Your task to perform on an android device: add a contact Image 0: 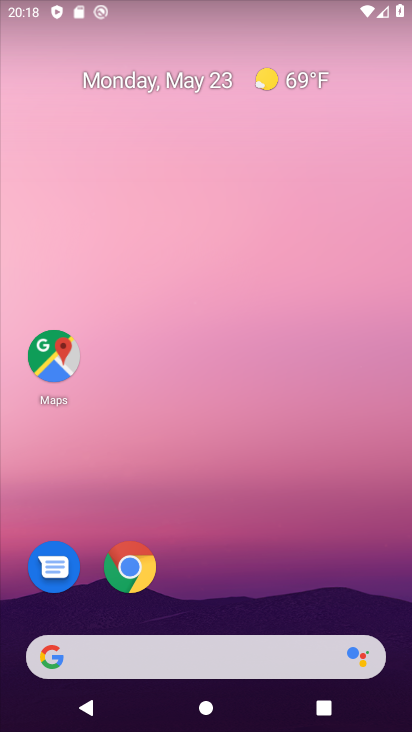
Step 0: drag from (224, 607) to (277, 43)
Your task to perform on an android device: add a contact Image 1: 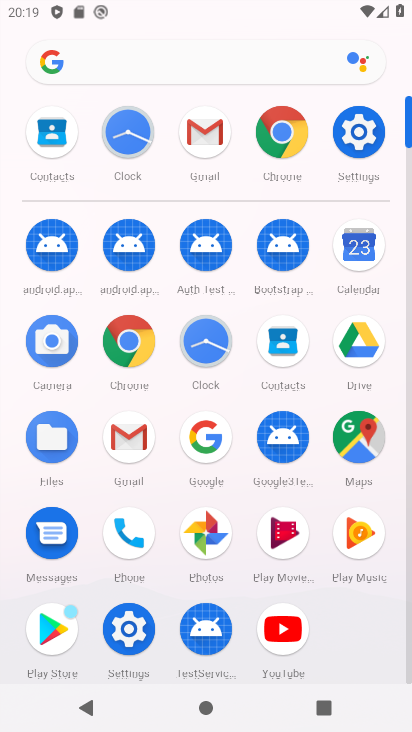
Step 1: click (283, 349)
Your task to perform on an android device: add a contact Image 2: 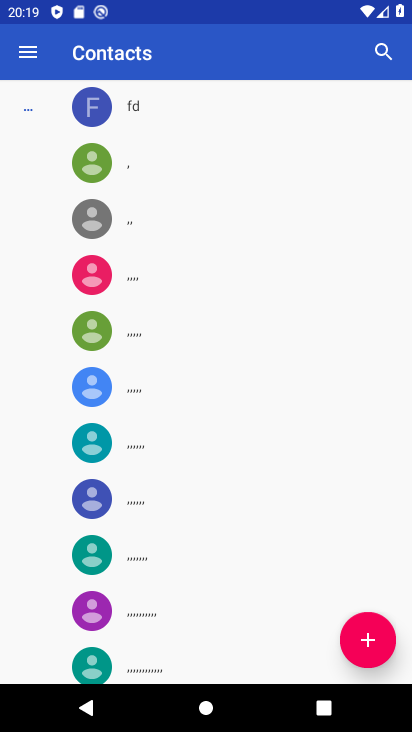
Step 2: click (370, 647)
Your task to perform on an android device: add a contact Image 3: 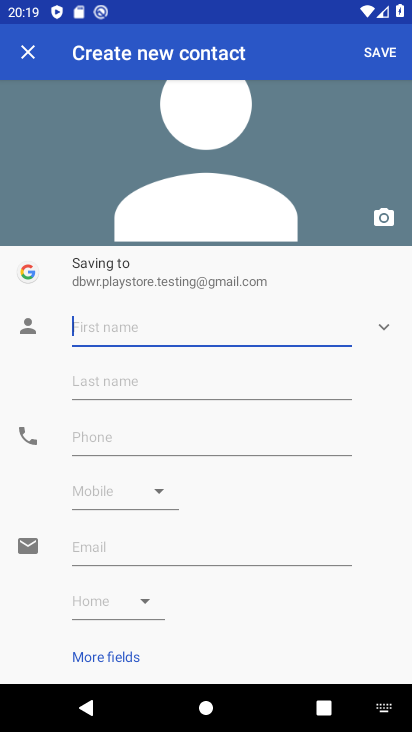
Step 3: type "federal"
Your task to perform on an android device: add a contact Image 4: 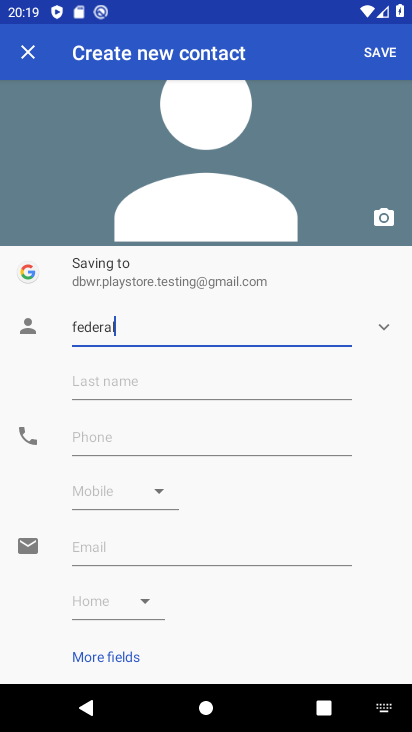
Step 4: click (384, 57)
Your task to perform on an android device: add a contact Image 5: 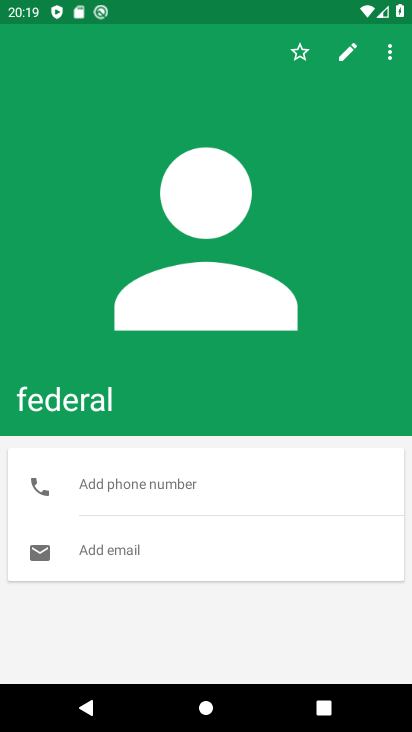
Step 5: task complete